Your task to perform on an android device: stop showing notifications on the lock screen Image 0: 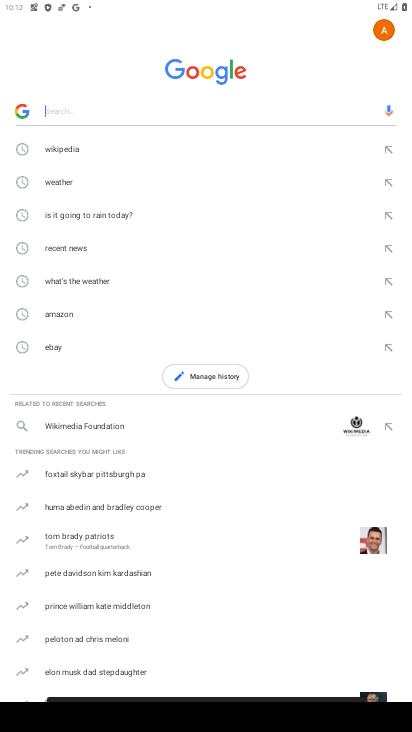
Step 0: press home button
Your task to perform on an android device: stop showing notifications on the lock screen Image 1: 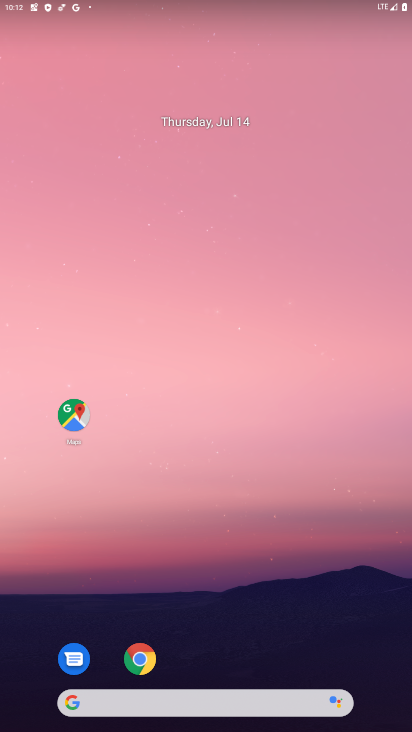
Step 1: drag from (338, 626) to (263, 146)
Your task to perform on an android device: stop showing notifications on the lock screen Image 2: 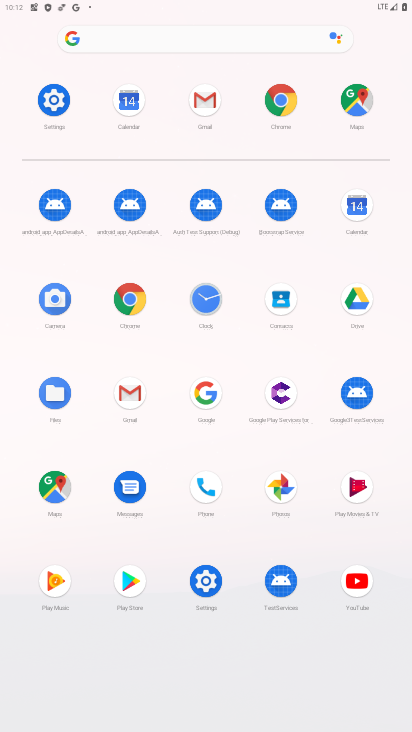
Step 2: click (54, 90)
Your task to perform on an android device: stop showing notifications on the lock screen Image 3: 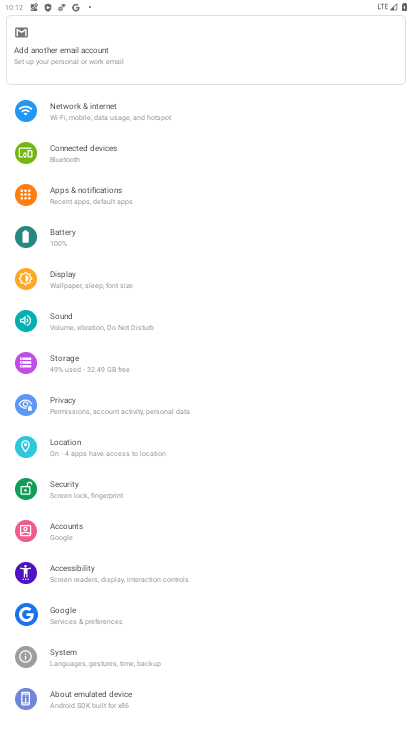
Step 3: click (123, 196)
Your task to perform on an android device: stop showing notifications on the lock screen Image 4: 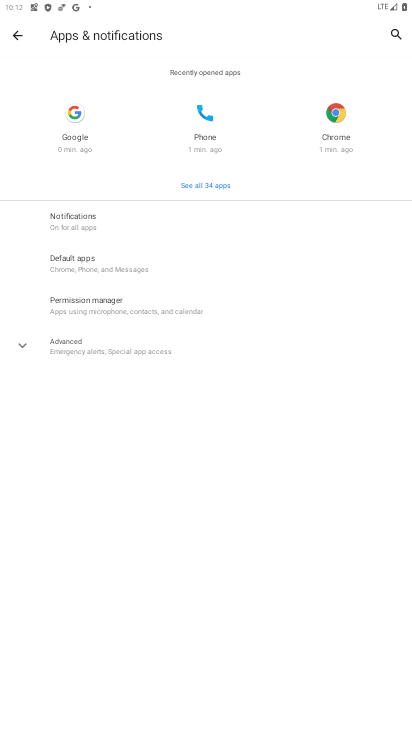
Step 4: click (110, 220)
Your task to perform on an android device: stop showing notifications on the lock screen Image 5: 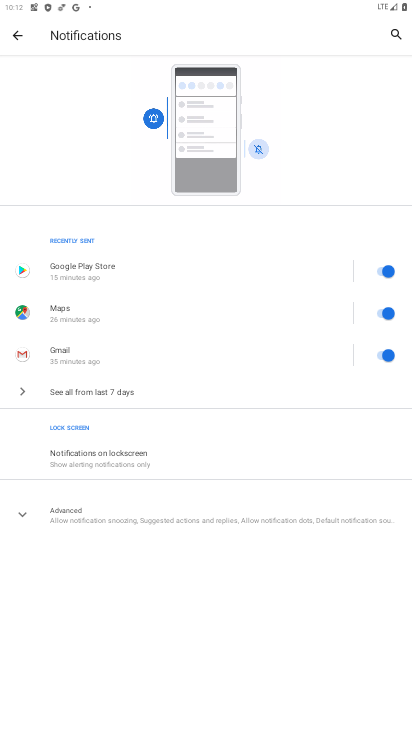
Step 5: click (185, 448)
Your task to perform on an android device: stop showing notifications on the lock screen Image 6: 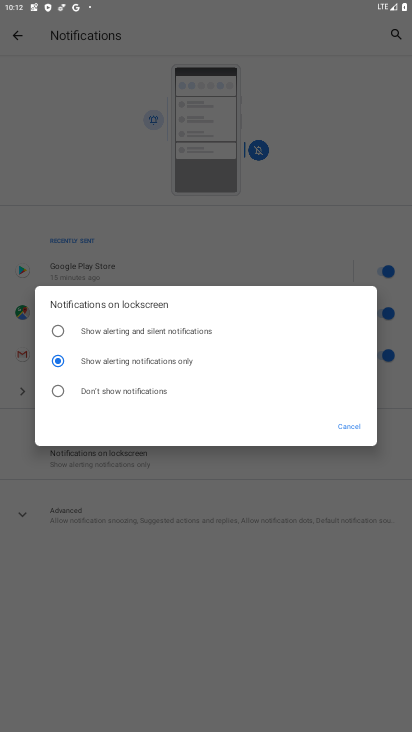
Step 6: click (140, 395)
Your task to perform on an android device: stop showing notifications on the lock screen Image 7: 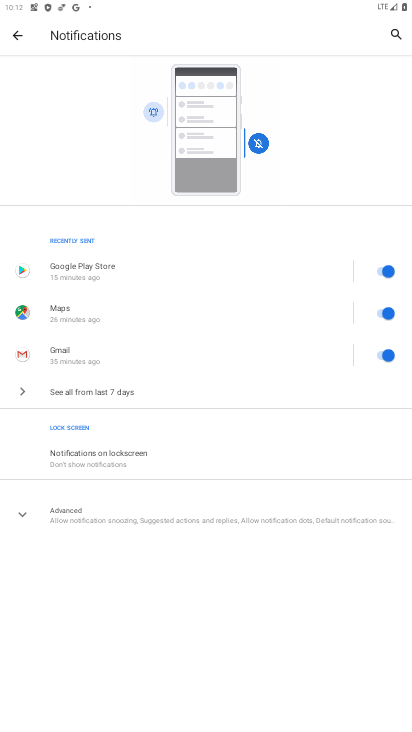
Step 7: task complete